Your task to perform on an android device: Open Google Maps Image 0: 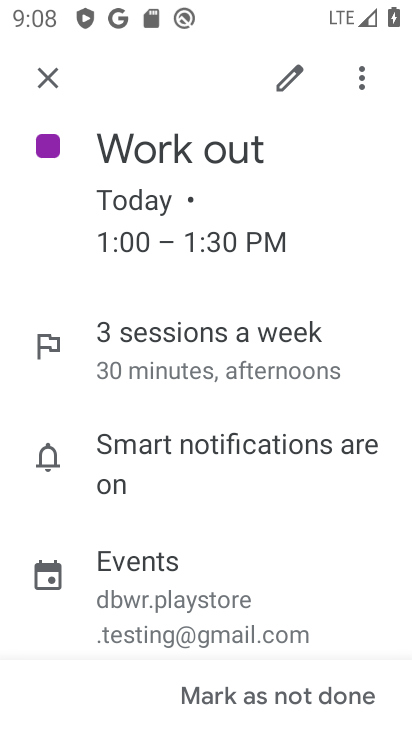
Step 0: press back button
Your task to perform on an android device: Open Google Maps Image 1: 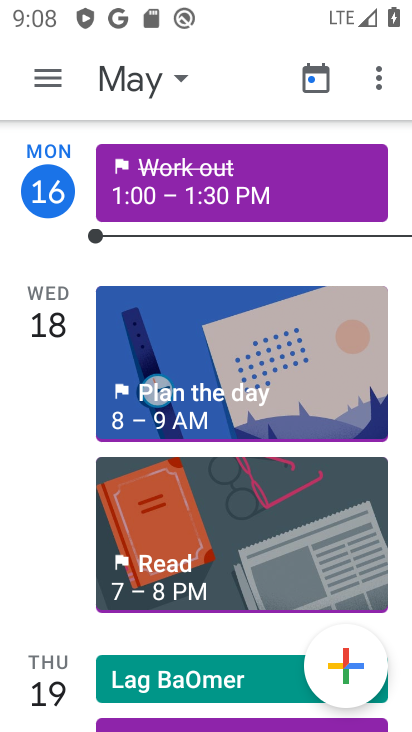
Step 1: press back button
Your task to perform on an android device: Open Google Maps Image 2: 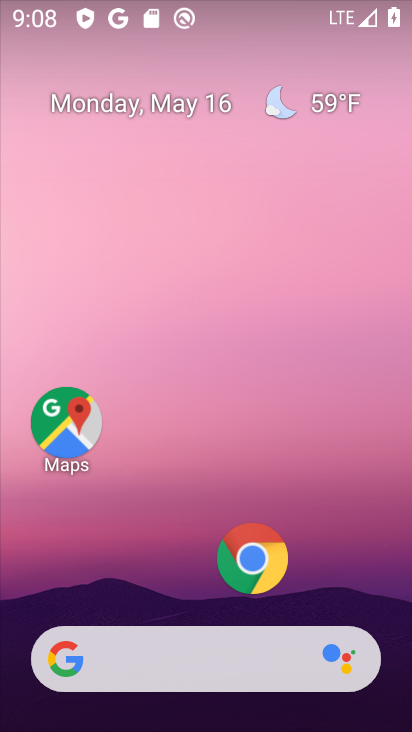
Step 2: click (89, 408)
Your task to perform on an android device: Open Google Maps Image 3: 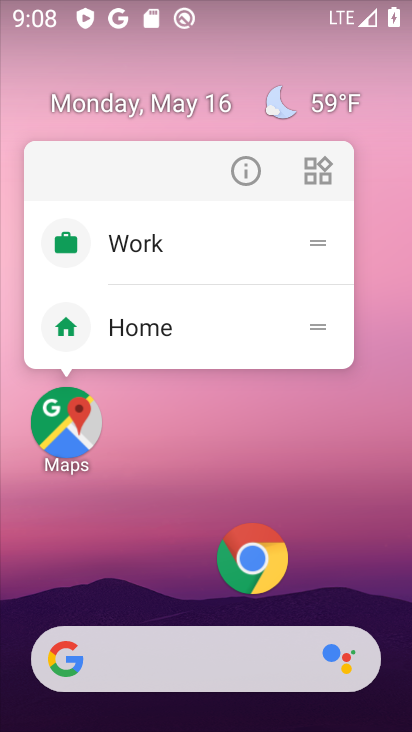
Step 3: click (59, 427)
Your task to perform on an android device: Open Google Maps Image 4: 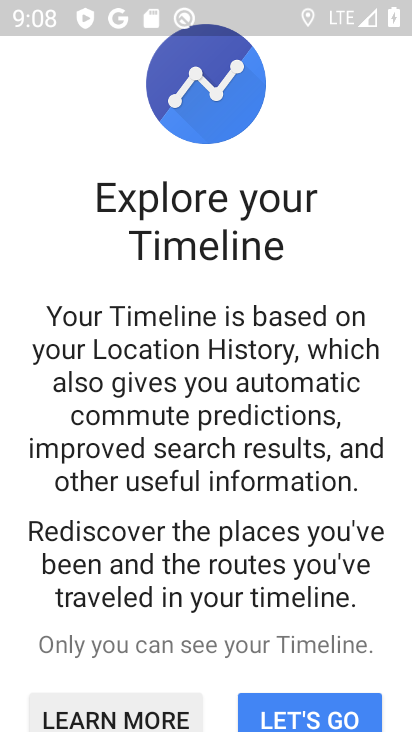
Step 4: task complete